Your task to perform on an android device: What's the weather today? Image 0: 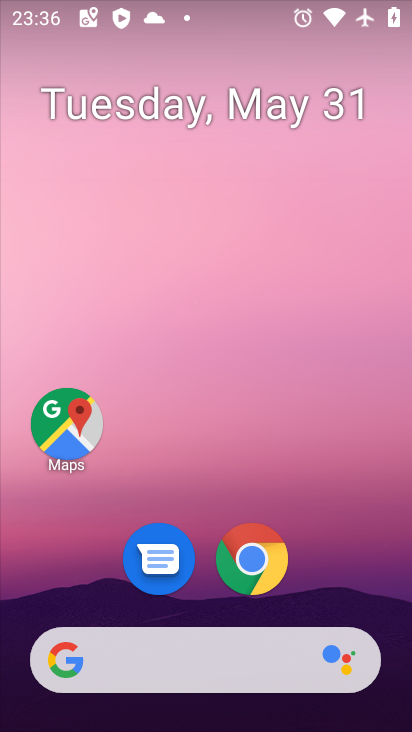
Step 0: drag from (313, 598) to (292, 59)
Your task to perform on an android device: What's the weather today? Image 1: 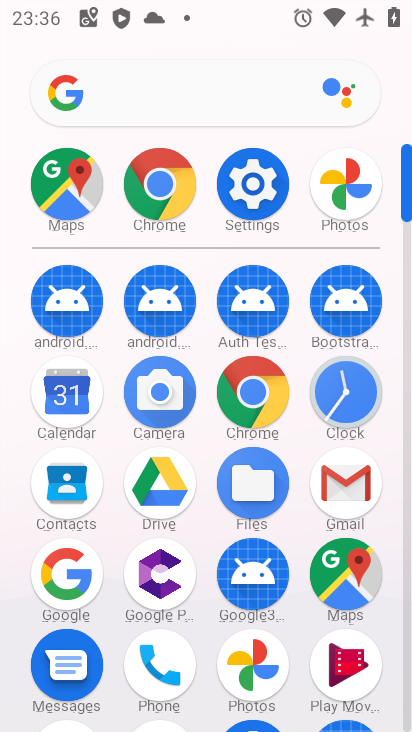
Step 1: click (71, 587)
Your task to perform on an android device: What's the weather today? Image 2: 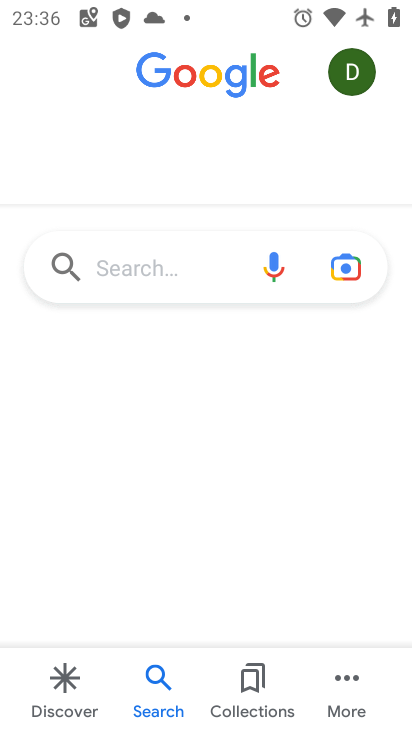
Step 2: click (163, 274)
Your task to perform on an android device: What's the weather today? Image 3: 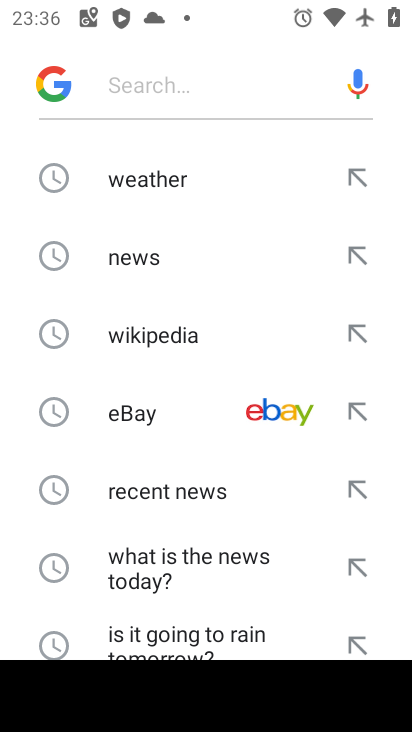
Step 3: drag from (161, 178) to (168, 84)
Your task to perform on an android device: What's the weather today? Image 4: 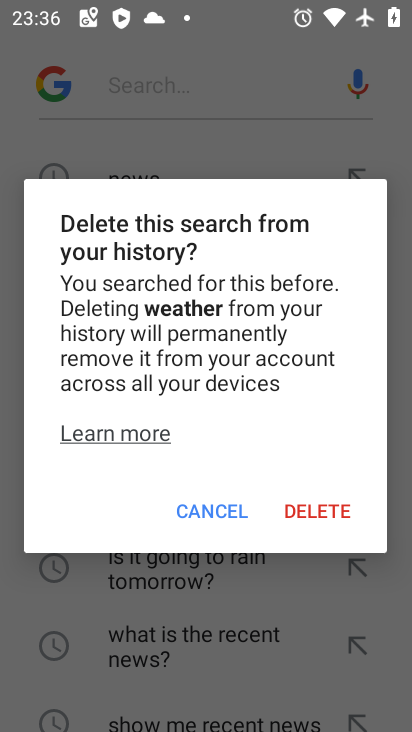
Step 4: click (242, 145)
Your task to perform on an android device: What's the weather today? Image 5: 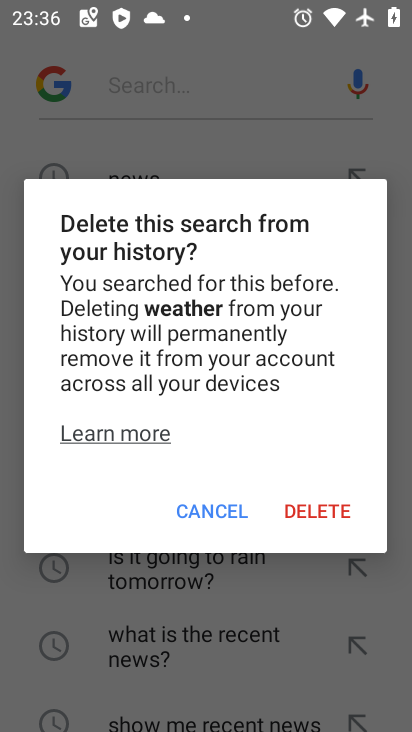
Step 5: click (216, 512)
Your task to perform on an android device: What's the weather today? Image 6: 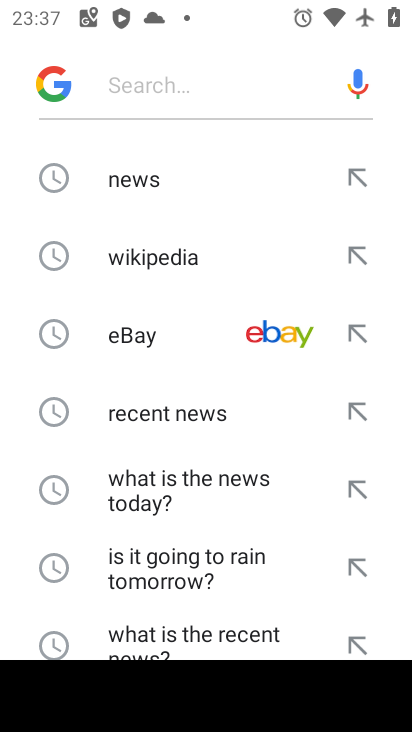
Step 6: drag from (233, 522) to (219, 105)
Your task to perform on an android device: What's the weather today? Image 7: 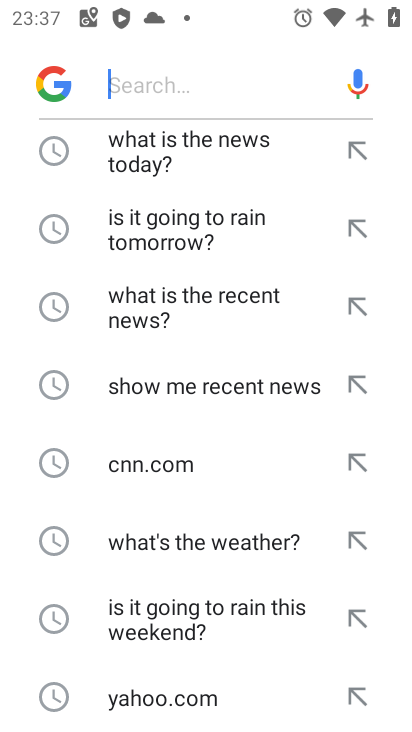
Step 7: type "weather today"
Your task to perform on an android device: What's the weather today? Image 8: 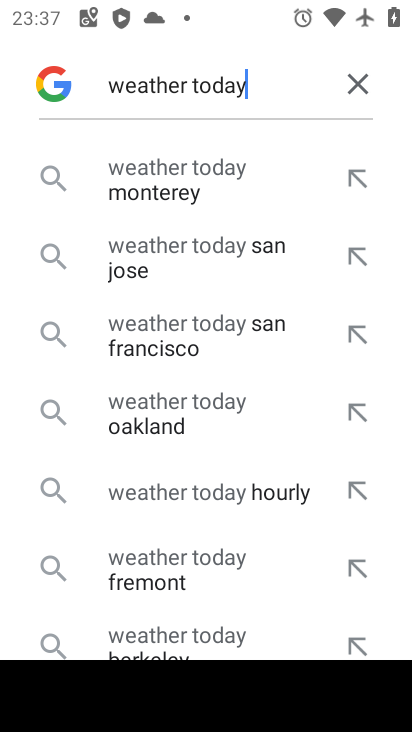
Step 8: drag from (262, 164) to (285, 503)
Your task to perform on an android device: What's the weather today? Image 9: 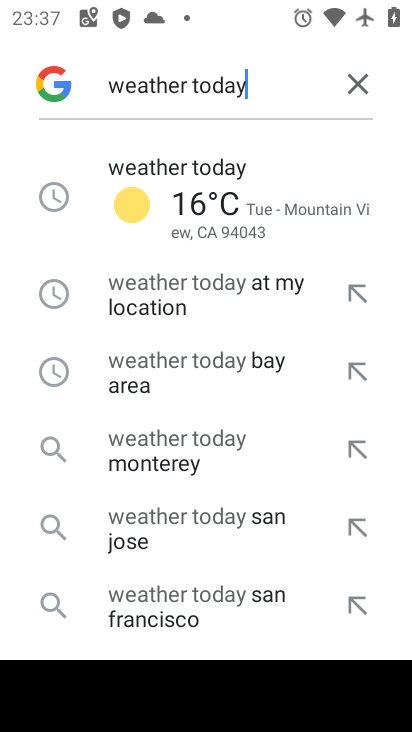
Step 9: click (216, 179)
Your task to perform on an android device: What's the weather today? Image 10: 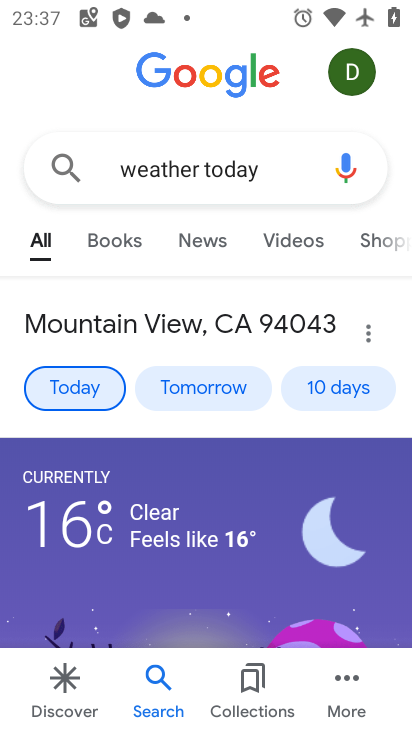
Step 10: task complete